Your task to perform on an android device: check the backup settings in the google photos Image 0: 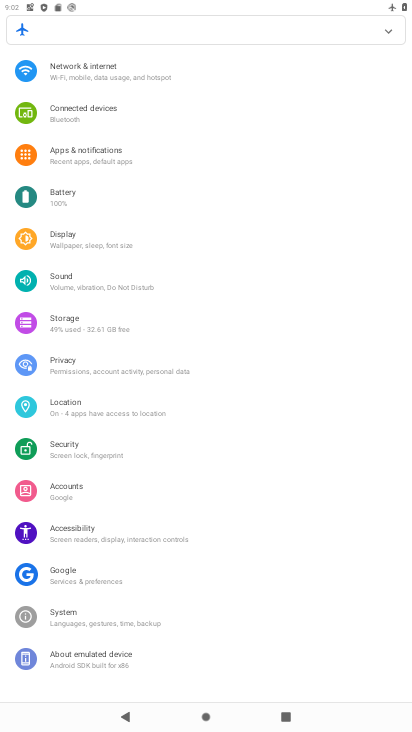
Step 0: press home button
Your task to perform on an android device: check the backup settings in the google photos Image 1: 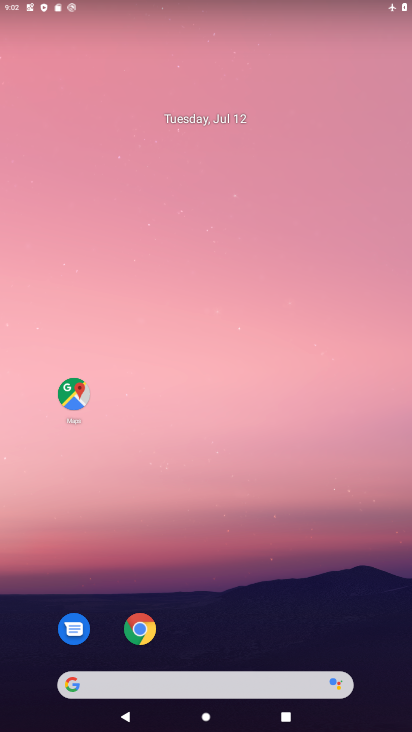
Step 1: drag from (233, 653) to (308, 274)
Your task to perform on an android device: check the backup settings in the google photos Image 2: 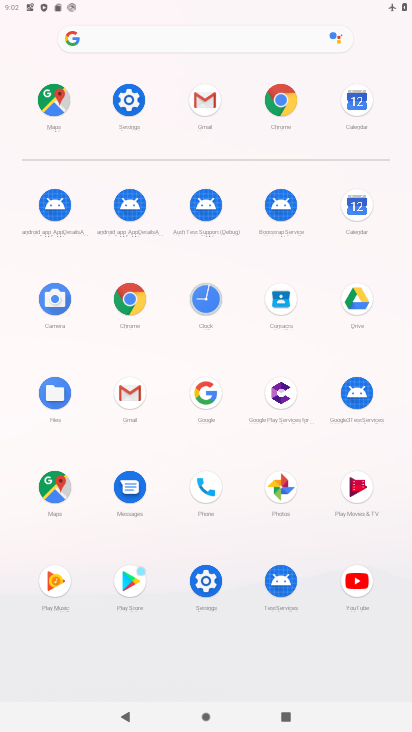
Step 2: click (270, 478)
Your task to perform on an android device: check the backup settings in the google photos Image 3: 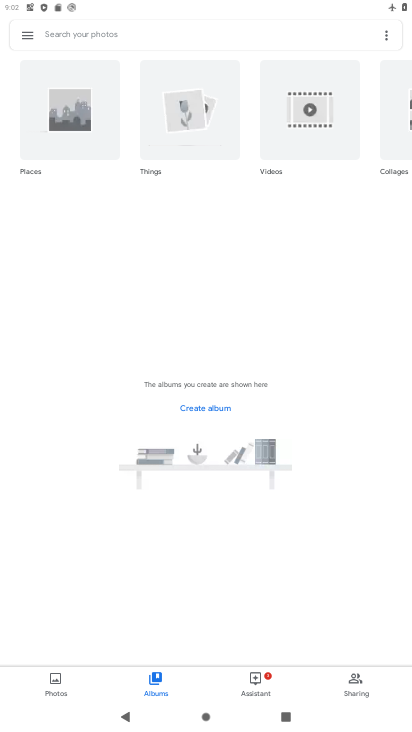
Step 3: click (20, 27)
Your task to perform on an android device: check the backup settings in the google photos Image 4: 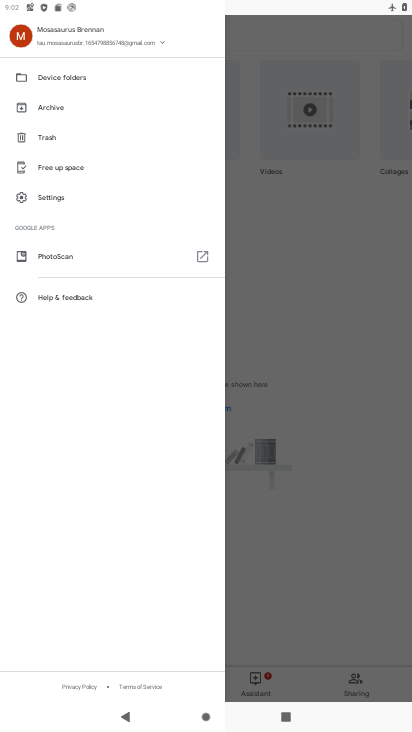
Step 4: click (58, 198)
Your task to perform on an android device: check the backup settings in the google photos Image 5: 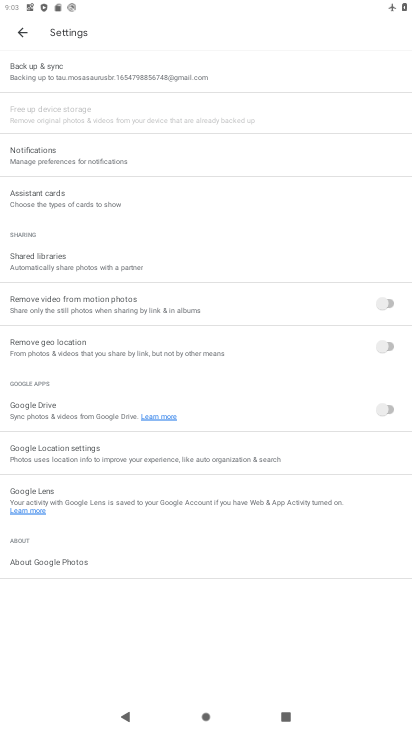
Step 5: click (80, 64)
Your task to perform on an android device: check the backup settings in the google photos Image 6: 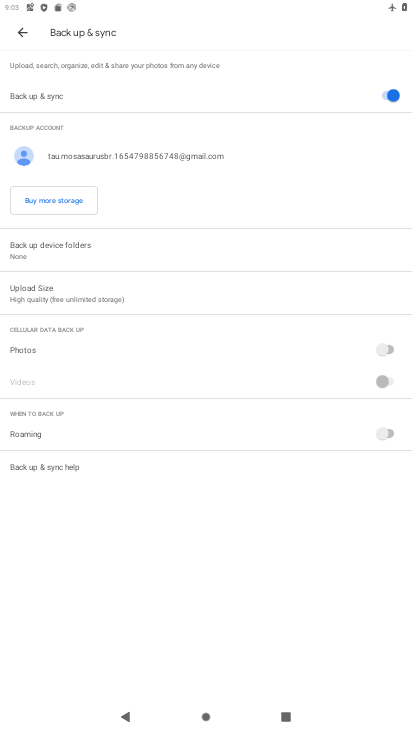
Step 6: task complete